Your task to perform on an android device: add a contact in the contacts app Image 0: 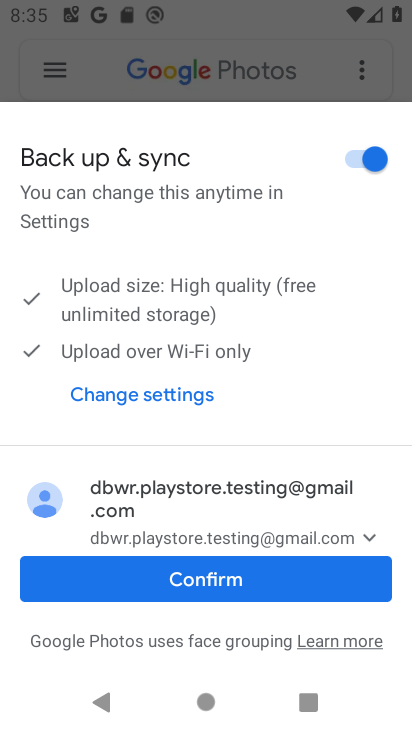
Step 0: press home button
Your task to perform on an android device: add a contact in the contacts app Image 1: 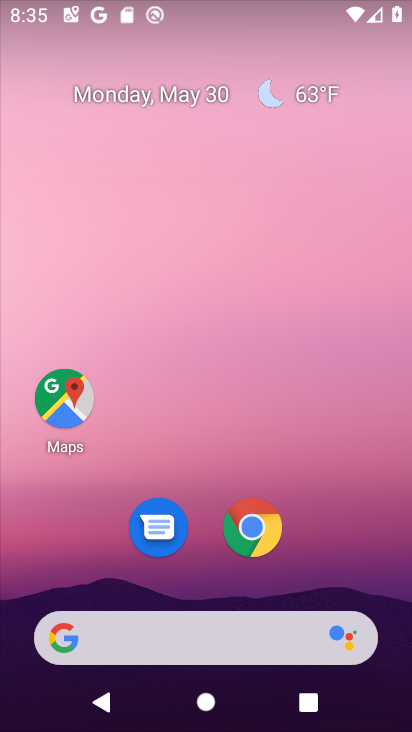
Step 1: drag from (197, 582) to (230, 192)
Your task to perform on an android device: add a contact in the contacts app Image 2: 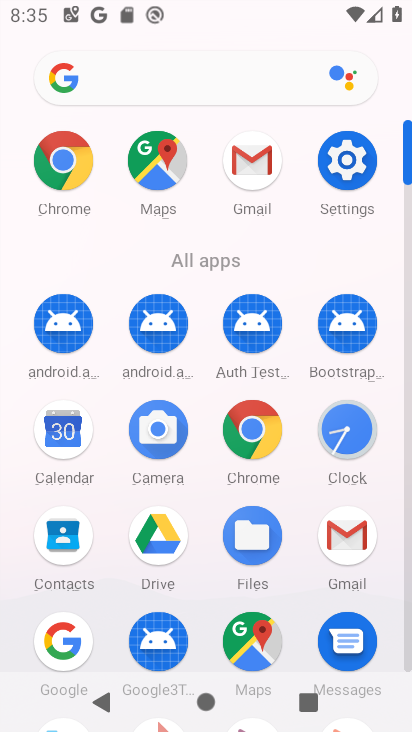
Step 2: drag from (213, 584) to (215, 365)
Your task to perform on an android device: add a contact in the contacts app Image 3: 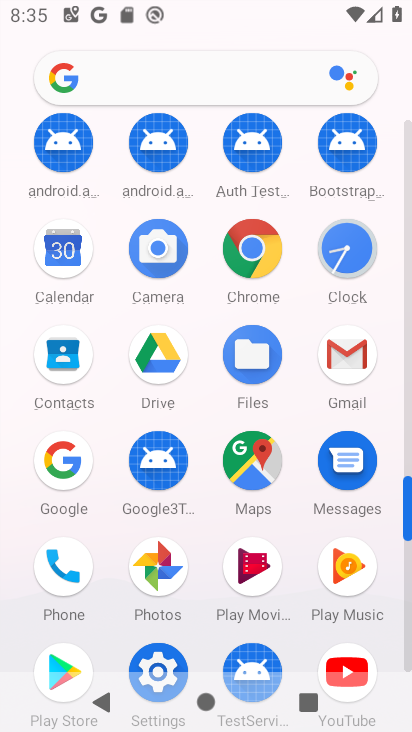
Step 3: click (63, 566)
Your task to perform on an android device: add a contact in the contacts app Image 4: 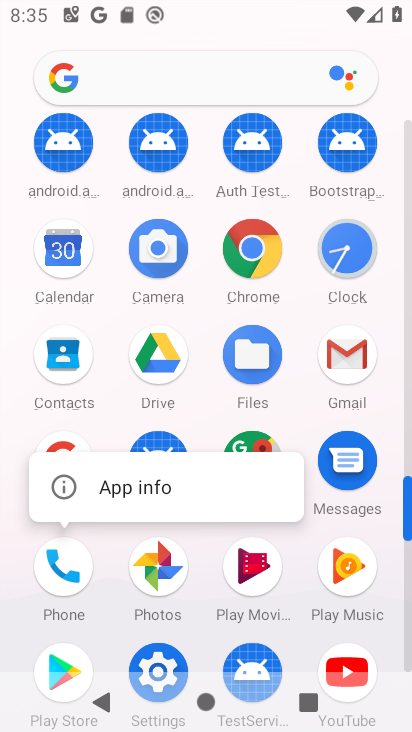
Step 4: click (66, 562)
Your task to perform on an android device: add a contact in the contacts app Image 5: 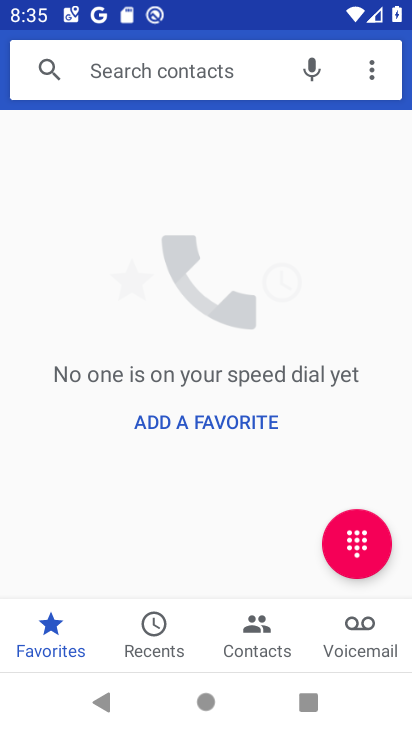
Step 5: click (196, 410)
Your task to perform on an android device: add a contact in the contacts app Image 6: 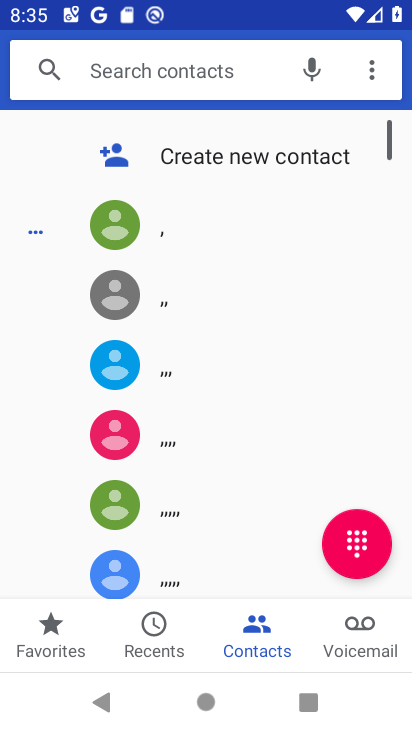
Step 6: click (221, 153)
Your task to perform on an android device: add a contact in the contacts app Image 7: 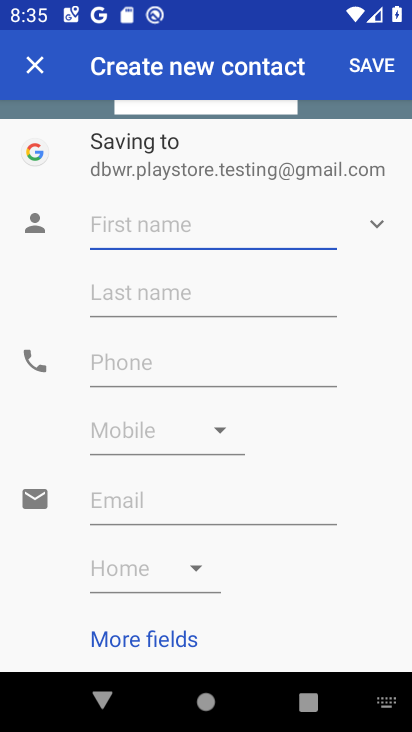
Step 7: click (198, 229)
Your task to perform on an android device: add a contact in the contacts app Image 8: 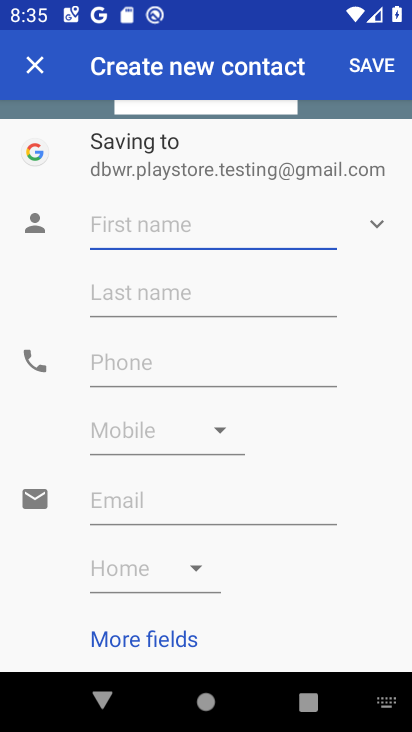
Step 8: type "hghghghghgyyyy"
Your task to perform on an android device: add a contact in the contacts app Image 9: 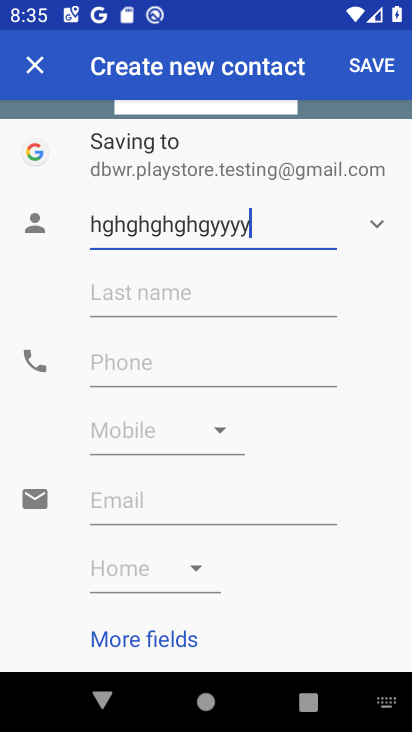
Step 9: click (211, 357)
Your task to perform on an android device: add a contact in the contacts app Image 10: 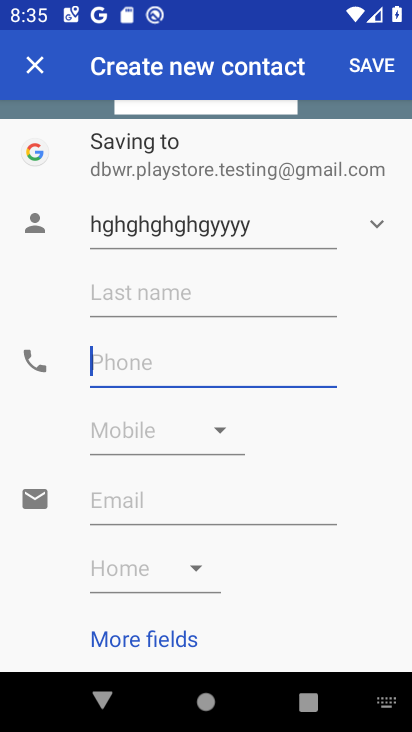
Step 10: type "3456789"
Your task to perform on an android device: add a contact in the contacts app Image 11: 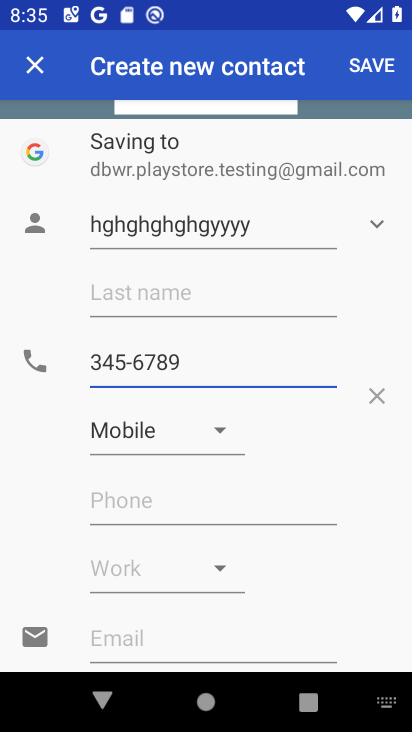
Step 11: click (370, 72)
Your task to perform on an android device: add a contact in the contacts app Image 12: 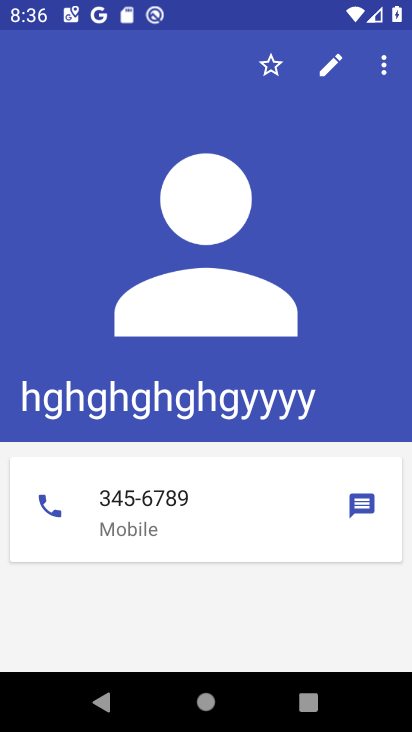
Step 12: task complete